Your task to perform on an android device: turn off wifi Image 0: 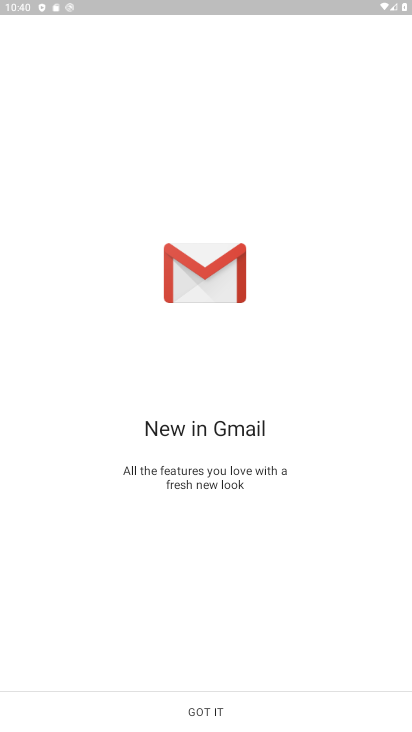
Step 0: click (204, 726)
Your task to perform on an android device: turn off wifi Image 1: 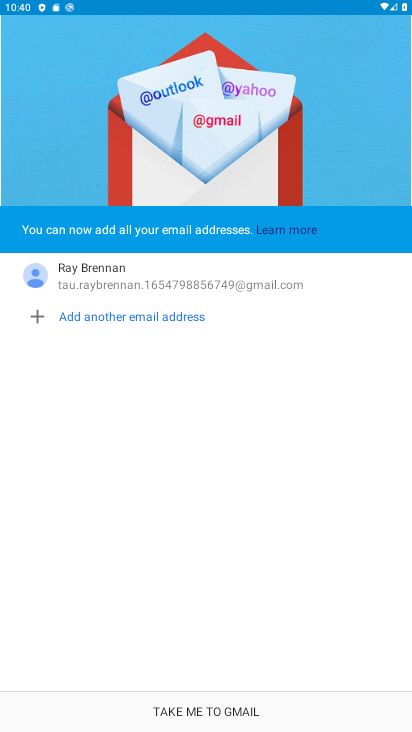
Step 1: click (218, 707)
Your task to perform on an android device: turn off wifi Image 2: 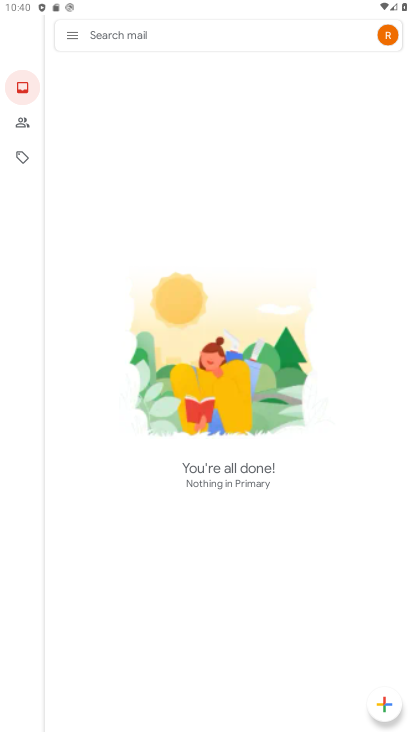
Step 2: press home button
Your task to perform on an android device: turn off wifi Image 3: 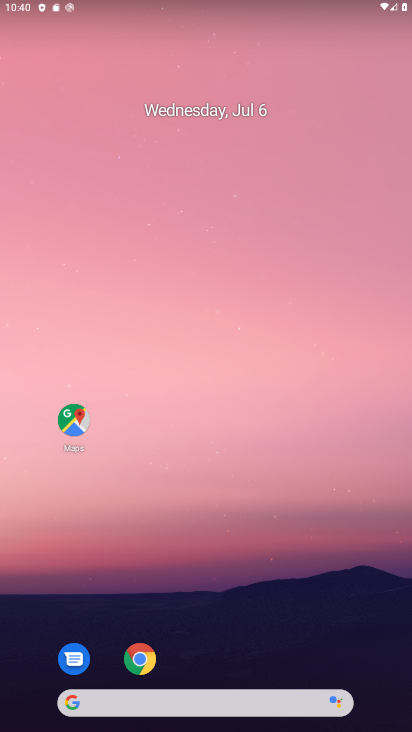
Step 3: drag from (208, 645) to (173, 92)
Your task to perform on an android device: turn off wifi Image 4: 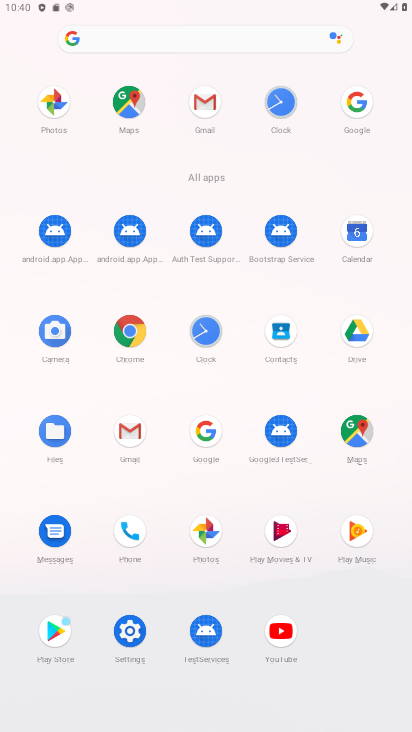
Step 4: click (129, 627)
Your task to perform on an android device: turn off wifi Image 5: 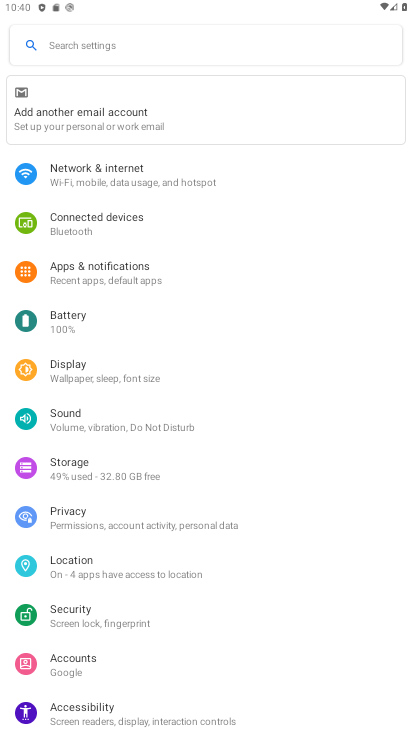
Step 5: click (211, 191)
Your task to perform on an android device: turn off wifi Image 6: 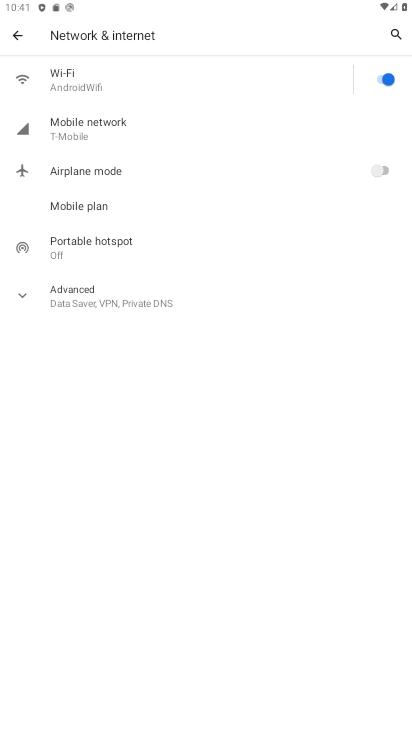
Step 6: click (381, 80)
Your task to perform on an android device: turn off wifi Image 7: 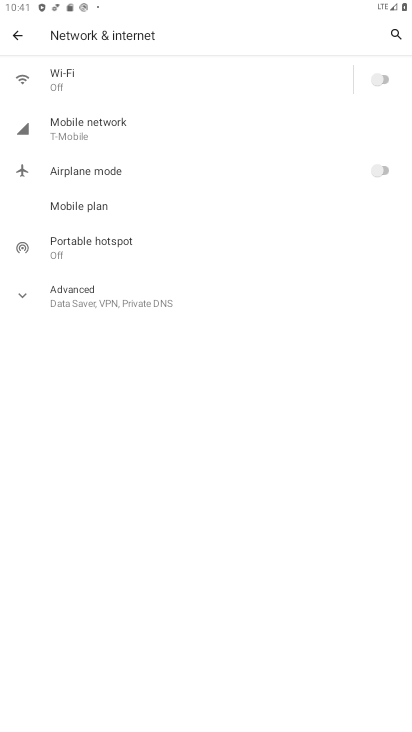
Step 7: task complete